Your task to perform on an android device: open device folders in google photos Image 0: 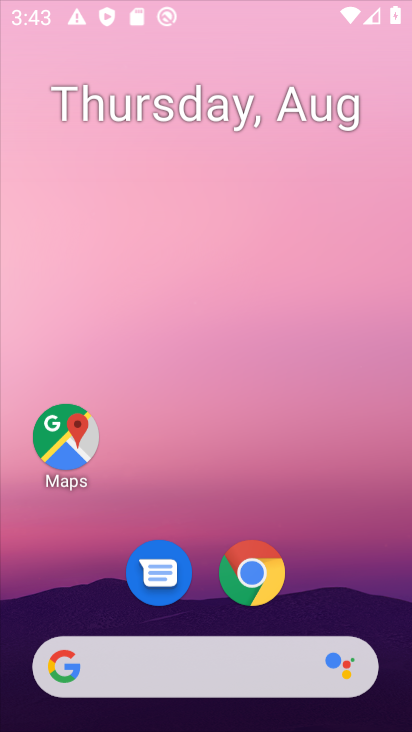
Step 0: click (236, 307)
Your task to perform on an android device: open device folders in google photos Image 1: 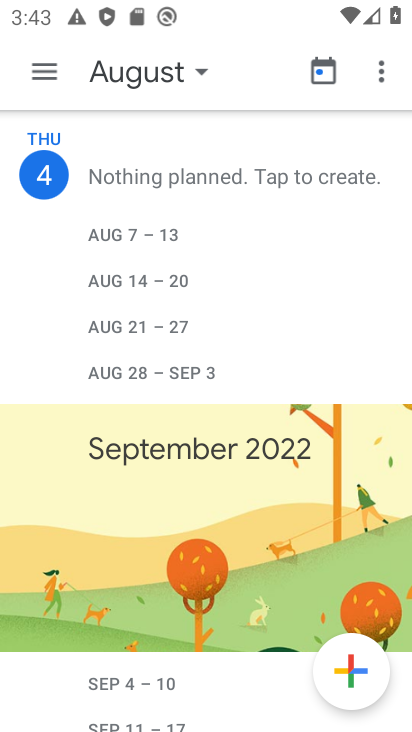
Step 1: press back button
Your task to perform on an android device: open device folders in google photos Image 2: 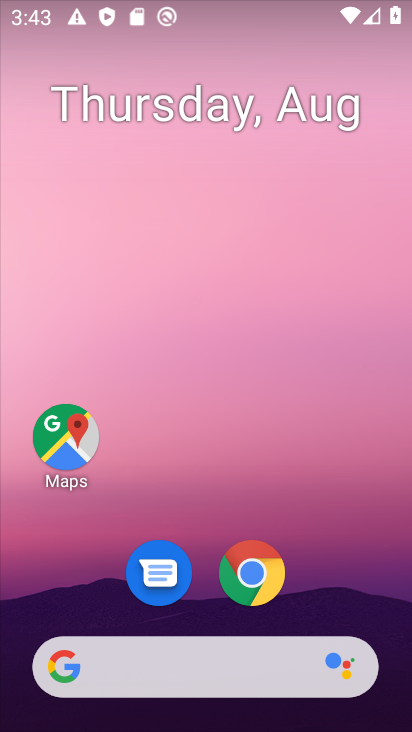
Step 2: drag from (218, 653) to (141, 204)
Your task to perform on an android device: open device folders in google photos Image 3: 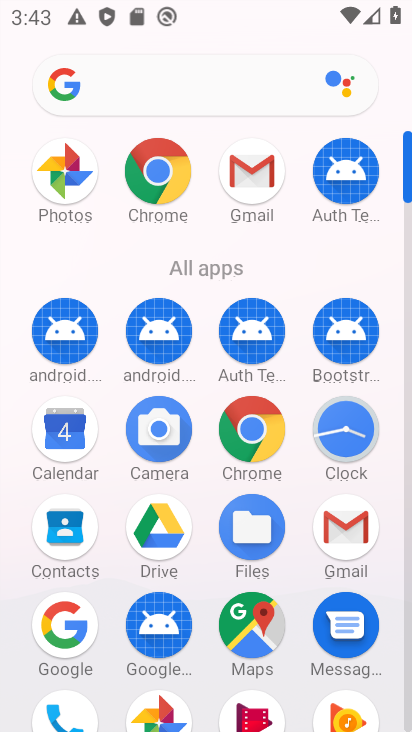
Step 3: drag from (183, 614) to (137, 252)
Your task to perform on an android device: open device folders in google photos Image 4: 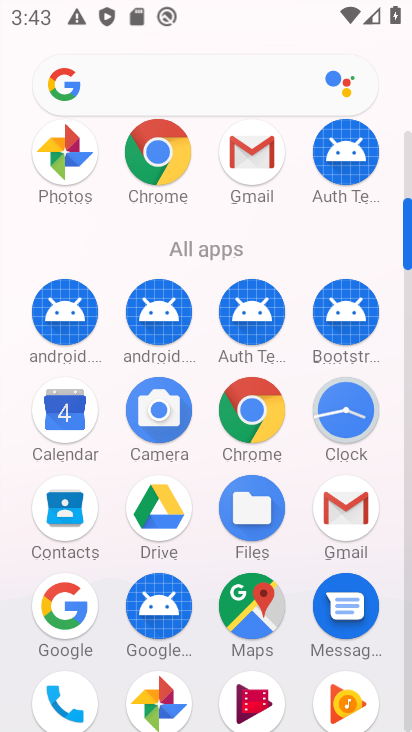
Step 4: click (167, 695)
Your task to perform on an android device: open device folders in google photos Image 5: 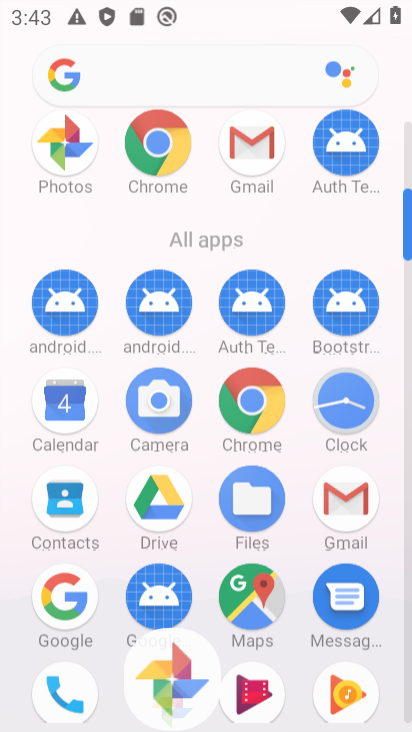
Step 5: click (167, 695)
Your task to perform on an android device: open device folders in google photos Image 6: 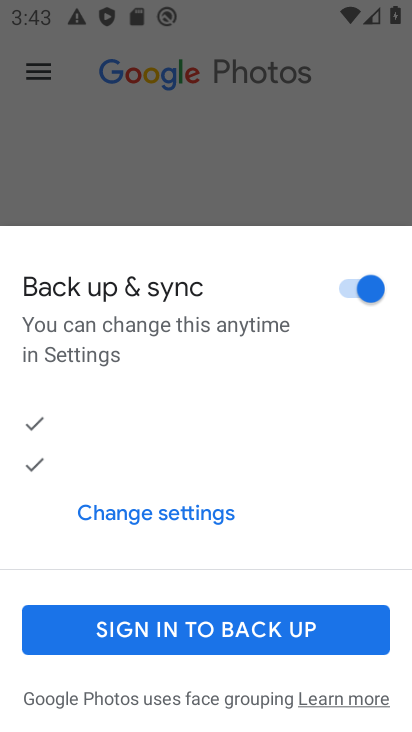
Step 6: click (32, 60)
Your task to perform on an android device: open device folders in google photos Image 7: 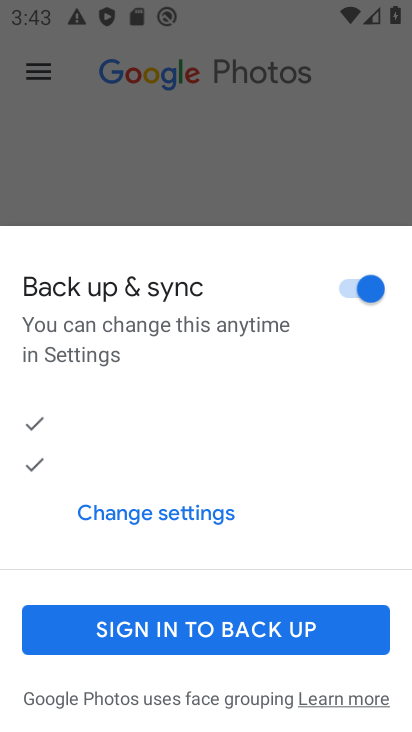
Step 7: click (33, 59)
Your task to perform on an android device: open device folders in google photos Image 8: 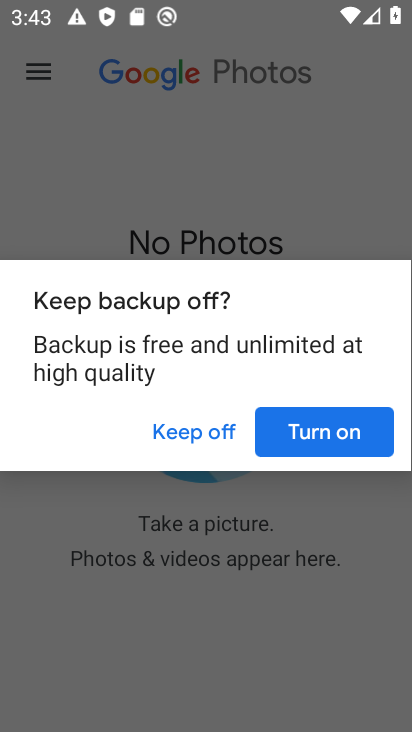
Step 8: click (179, 430)
Your task to perform on an android device: open device folders in google photos Image 9: 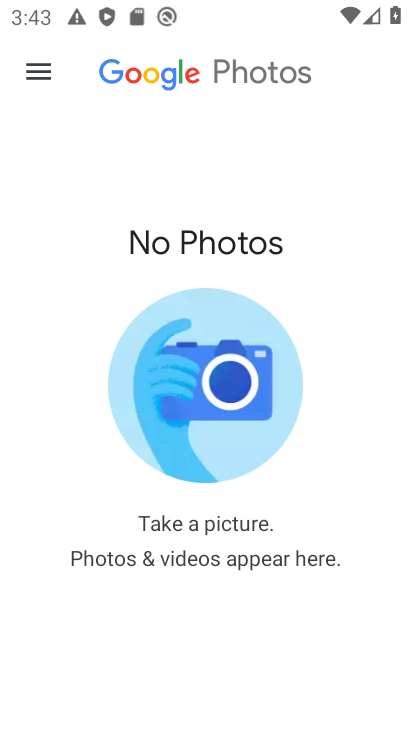
Step 9: drag from (29, 74) to (161, 343)
Your task to perform on an android device: open device folders in google photos Image 10: 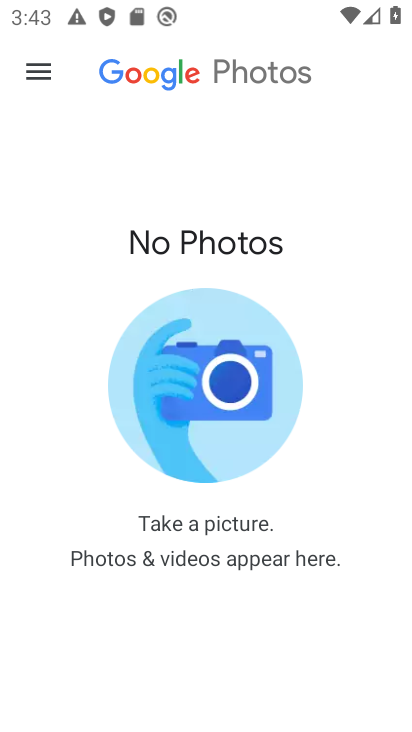
Step 10: click (42, 81)
Your task to perform on an android device: open device folders in google photos Image 11: 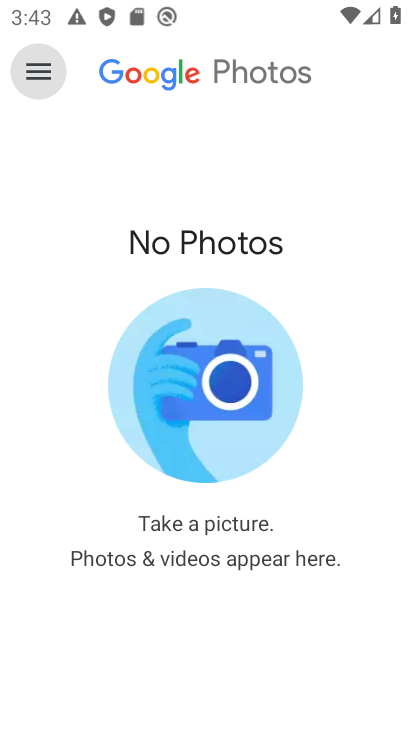
Step 11: click (42, 81)
Your task to perform on an android device: open device folders in google photos Image 12: 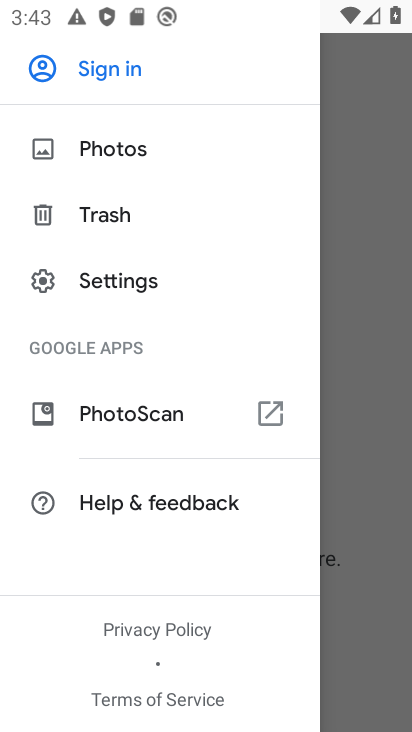
Step 12: click (42, 81)
Your task to perform on an android device: open device folders in google photos Image 13: 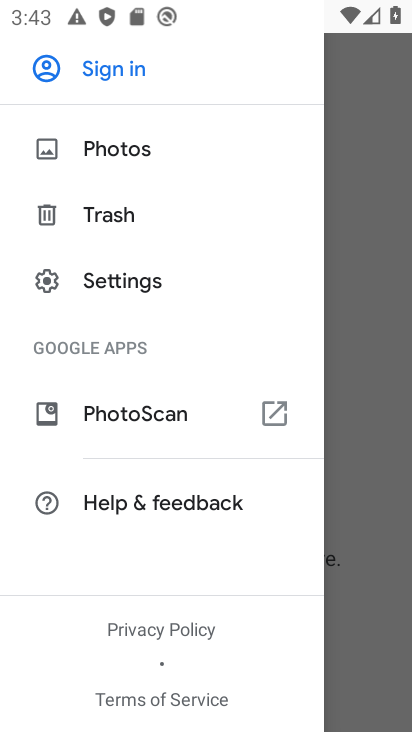
Step 13: click (95, 154)
Your task to perform on an android device: open device folders in google photos Image 14: 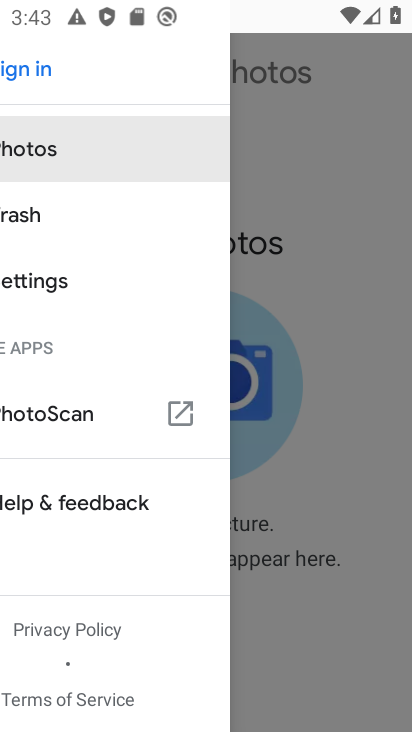
Step 14: click (98, 154)
Your task to perform on an android device: open device folders in google photos Image 15: 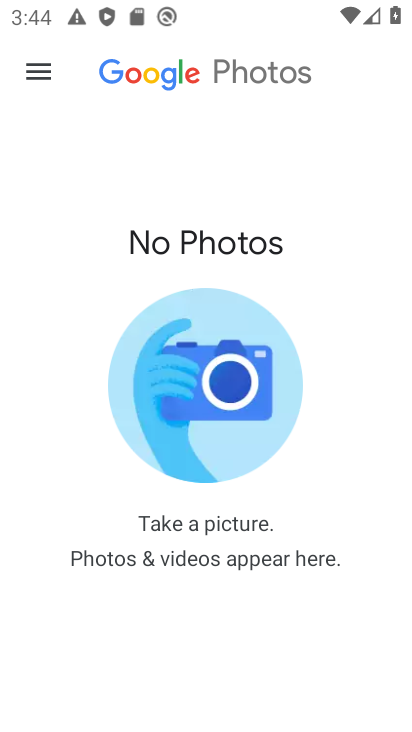
Step 15: task complete